Your task to perform on an android device: Toggle the flashlight Image 0: 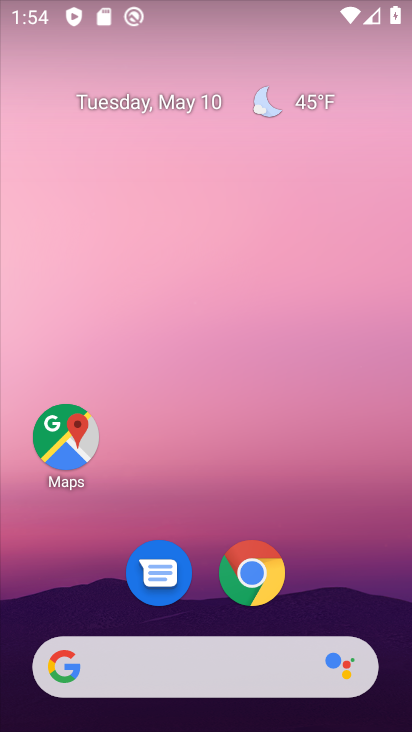
Step 0: drag from (287, 585) to (294, 266)
Your task to perform on an android device: Toggle the flashlight Image 1: 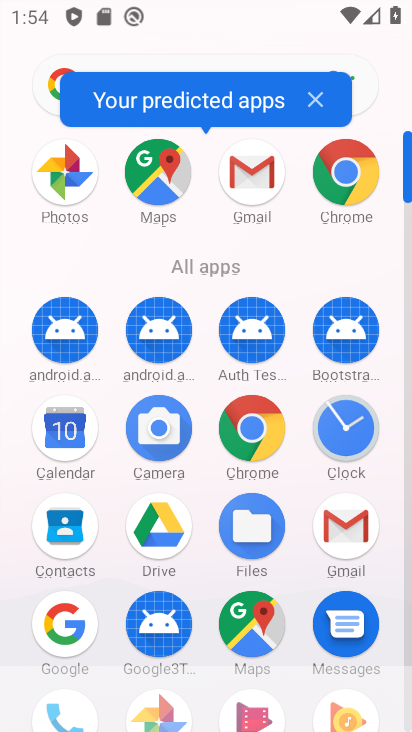
Step 1: drag from (210, 569) to (223, 14)
Your task to perform on an android device: Toggle the flashlight Image 2: 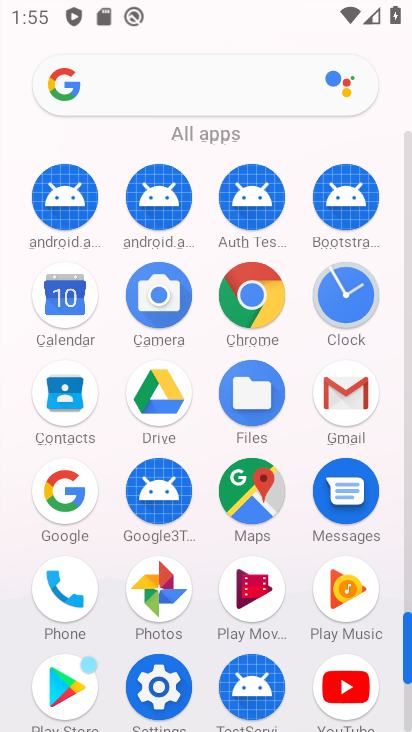
Step 2: click (166, 693)
Your task to perform on an android device: Toggle the flashlight Image 3: 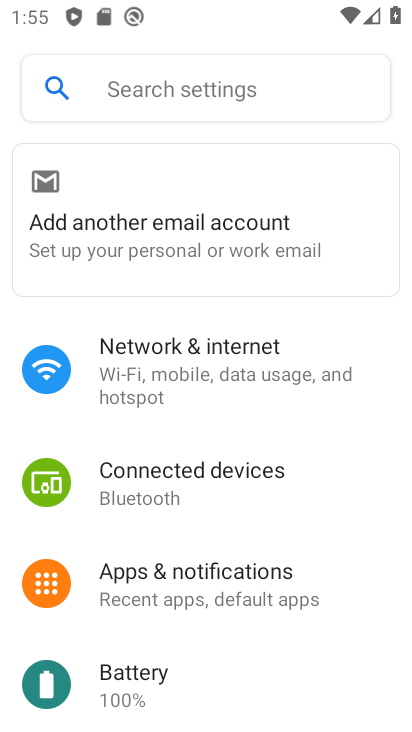
Step 3: click (227, 93)
Your task to perform on an android device: Toggle the flashlight Image 4: 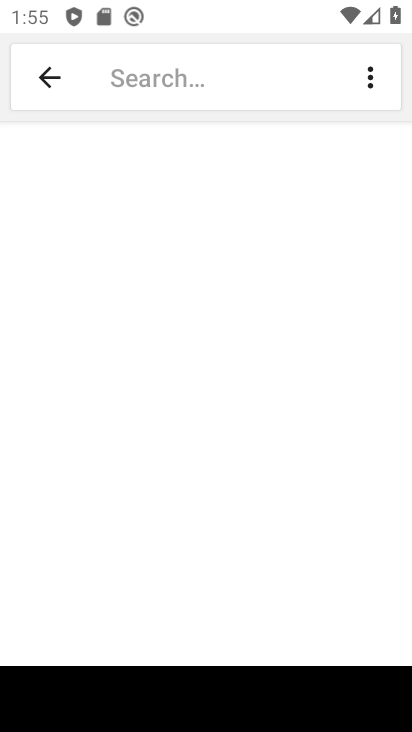
Step 4: type "flashlight"
Your task to perform on an android device: Toggle the flashlight Image 5: 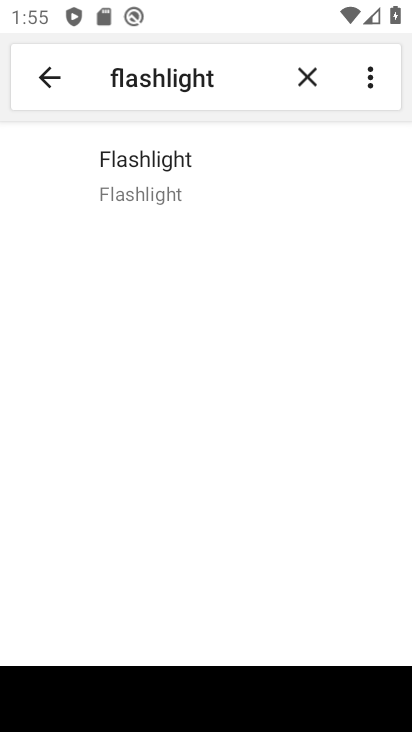
Step 5: click (148, 185)
Your task to perform on an android device: Toggle the flashlight Image 6: 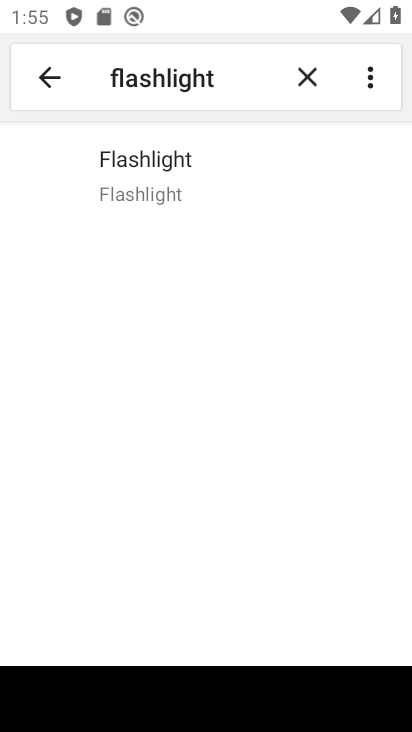
Step 6: click (147, 185)
Your task to perform on an android device: Toggle the flashlight Image 7: 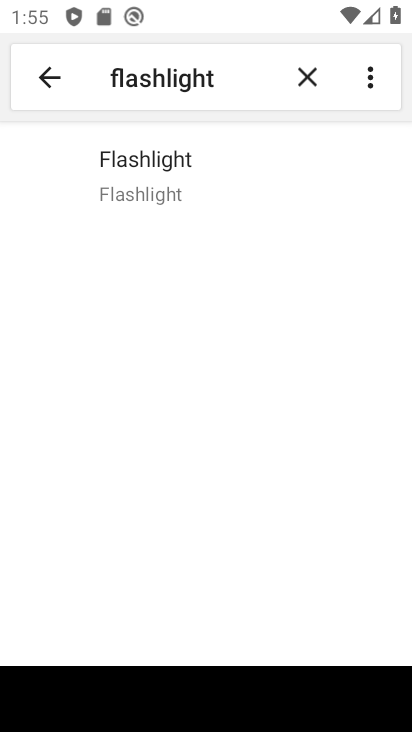
Step 7: click (146, 184)
Your task to perform on an android device: Toggle the flashlight Image 8: 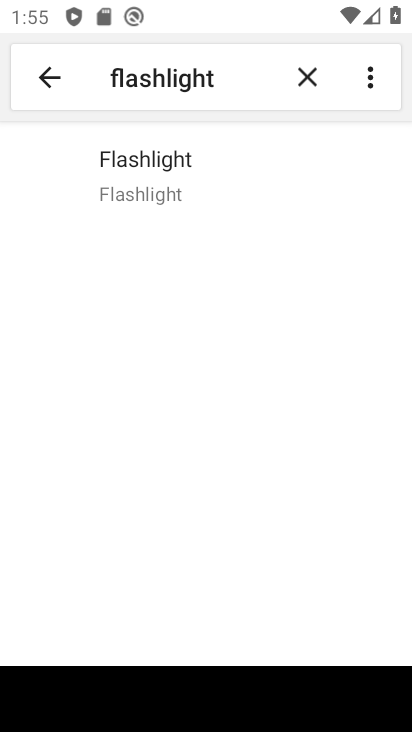
Step 8: task complete